Your task to perform on an android device: set an alarm Image 0: 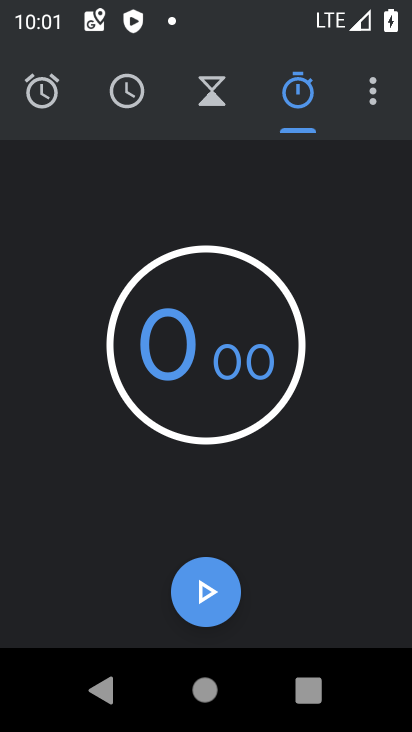
Step 0: click (41, 99)
Your task to perform on an android device: set an alarm Image 1: 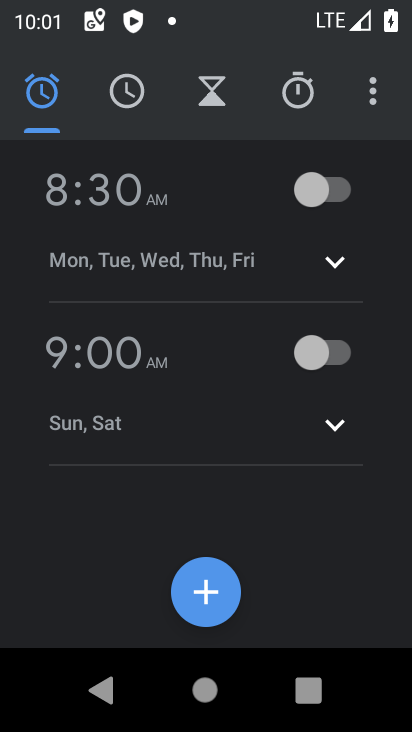
Step 1: click (78, 201)
Your task to perform on an android device: set an alarm Image 2: 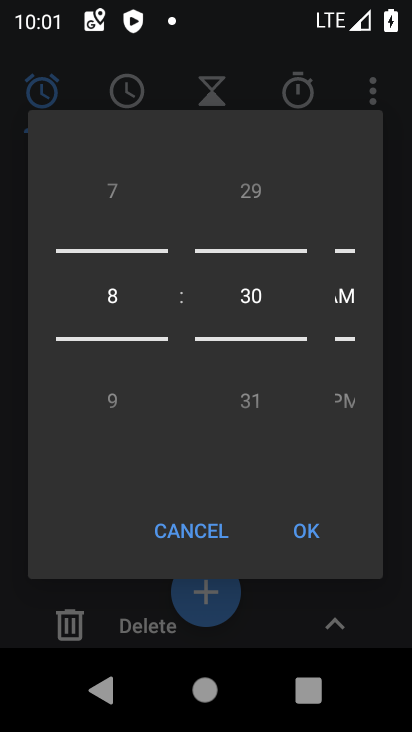
Step 2: drag from (124, 210) to (126, 425)
Your task to perform on an android device: set an alarm Image 3: 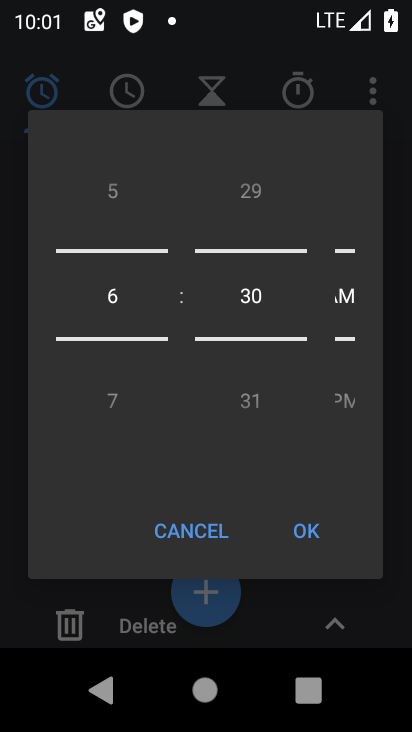
Step 3: click (310, 528)
Your task to perform on an android device: set an alarm Image 4: 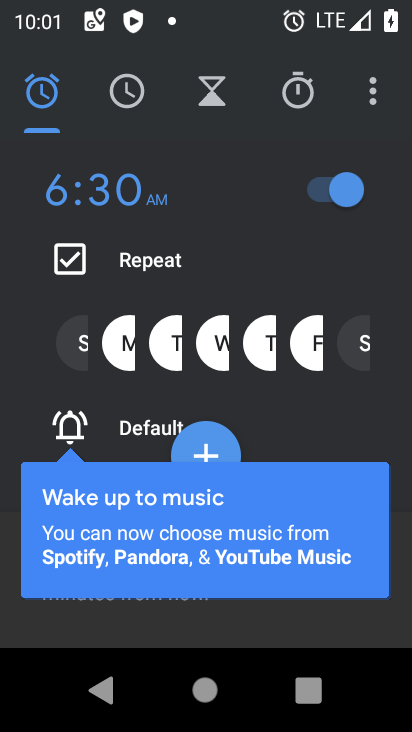
Step 4: click (363, 348)
Your task to perform on an android device: set an alarm Image 5: 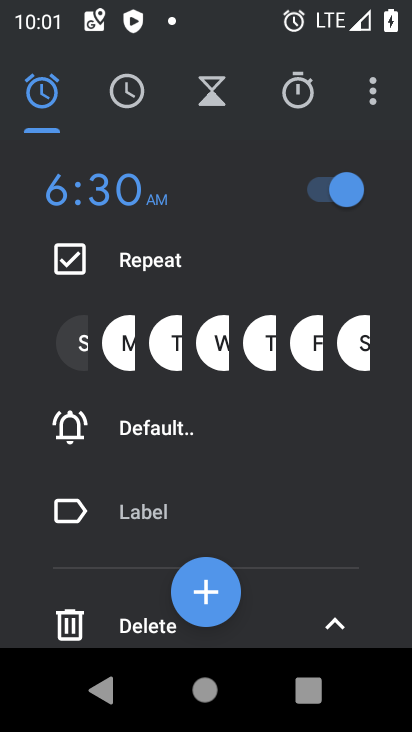
Step 5: click (335, 613)
Your task to perform on an android device: set an alarm Image 6: 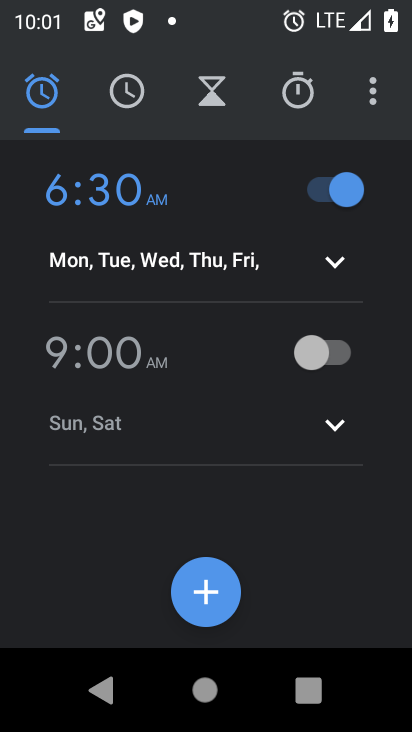
Step 6: task complete